Your task to perform on an android device: What is the news today? Image 0: 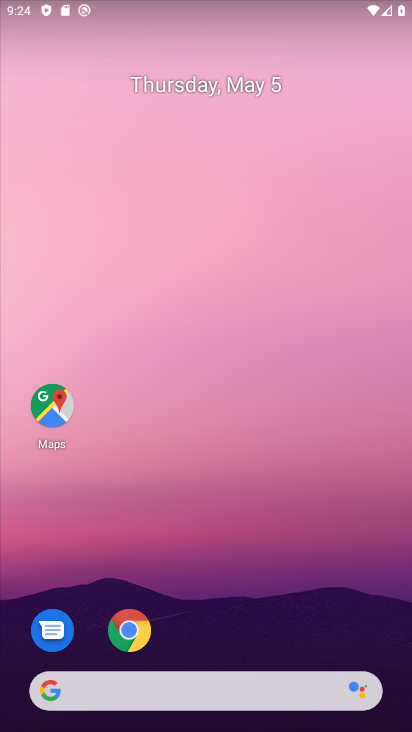
Step 0: click (171, 653)
Your task to perform on an android device: What is the news today? Image 1: 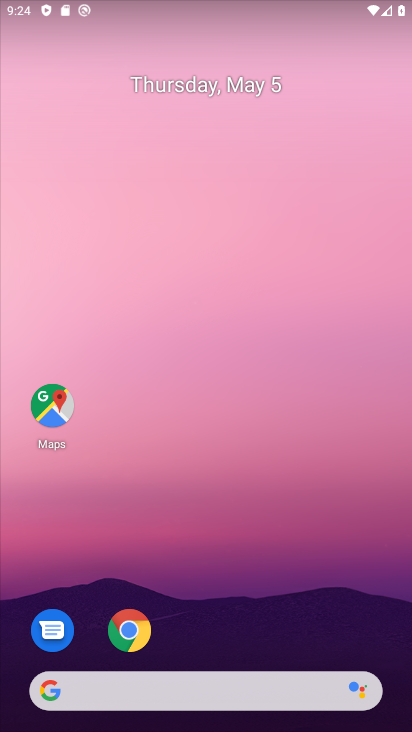
Step 1: click (190, 686)
Your task to perform on an android device: What is the news today? Image 2: 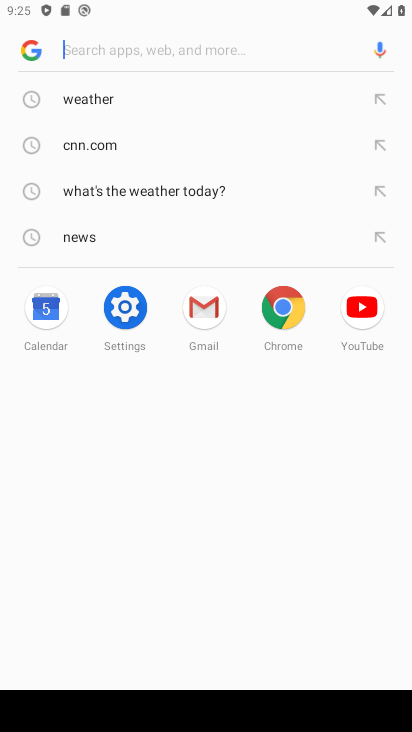
Step 2: type "news today"
Your task to perform on an android device: What is the news today? Image 3: 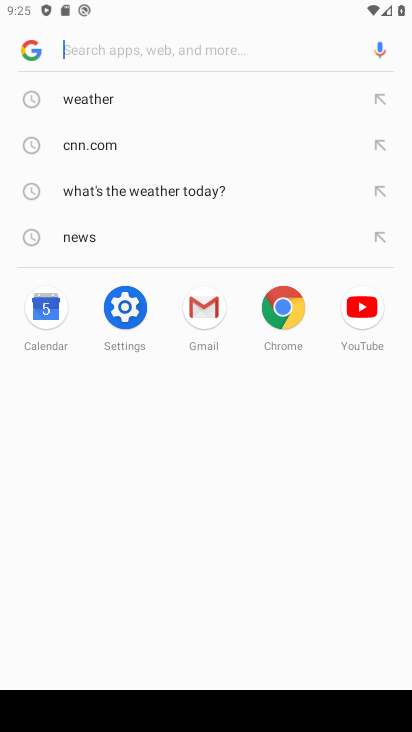
Step 3: click (150, 225)
Your task to perform on an android device: What is the news today? Image 4: 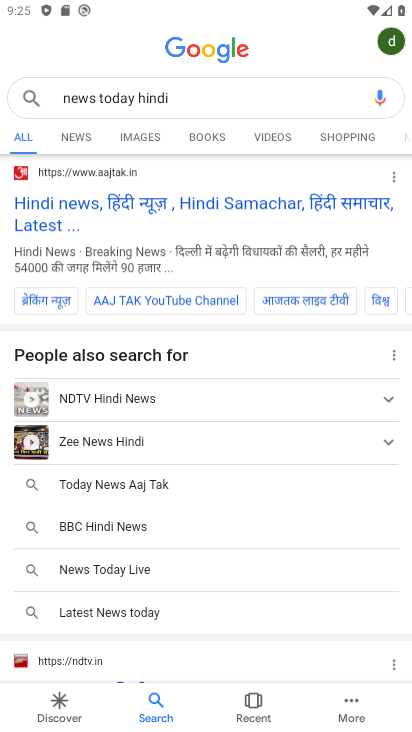
Step 4: task complete